Your task to perform on an android device: turn off wifi Image 0: 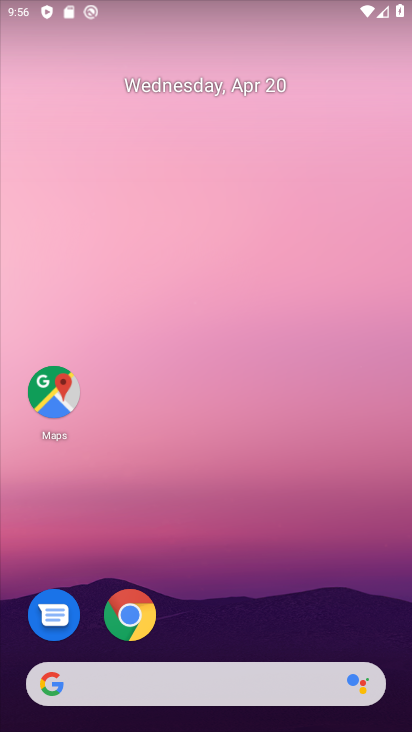
Step 0: drag from (327, 606) to (248, 97)
Your task to perform on an android device: turn off wifi Image 1: 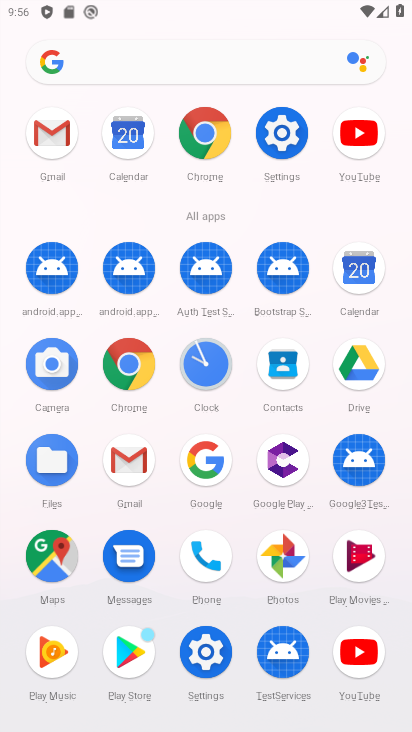
Step 1: click (290, 135)
Your task to perform on an android device: turn off wifi Image 2: 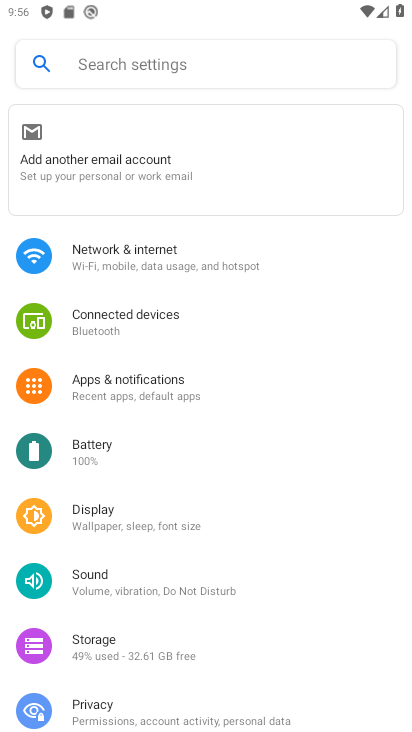
Step 2: click (223, 274)
Your task to perform on an android device: turn off wifi Image 3: 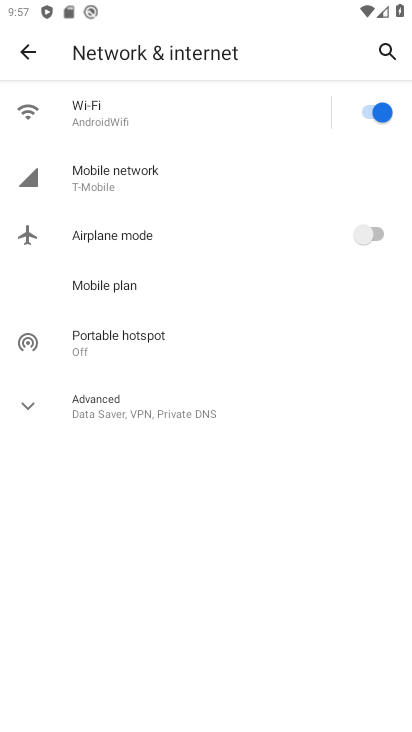
Step 3: click (377, 115)
Your task to perform on an android device: turn off wifi Image 4: 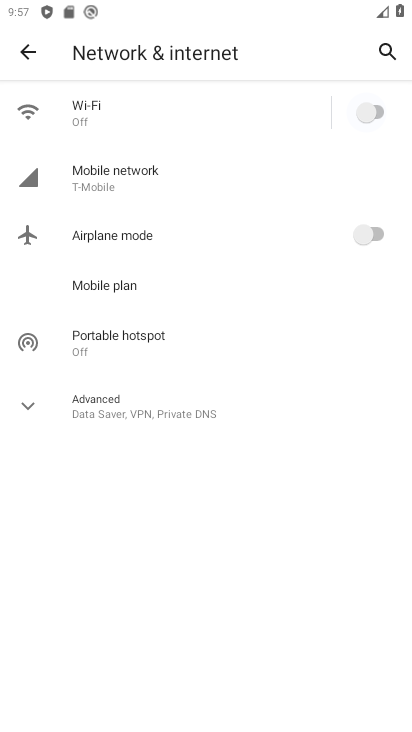
Step 4: task complete